Your task to perform on an android device: View the shopping cart on amazon.com. Add "bose soundlink" to the cart on amazon.com Image 0: 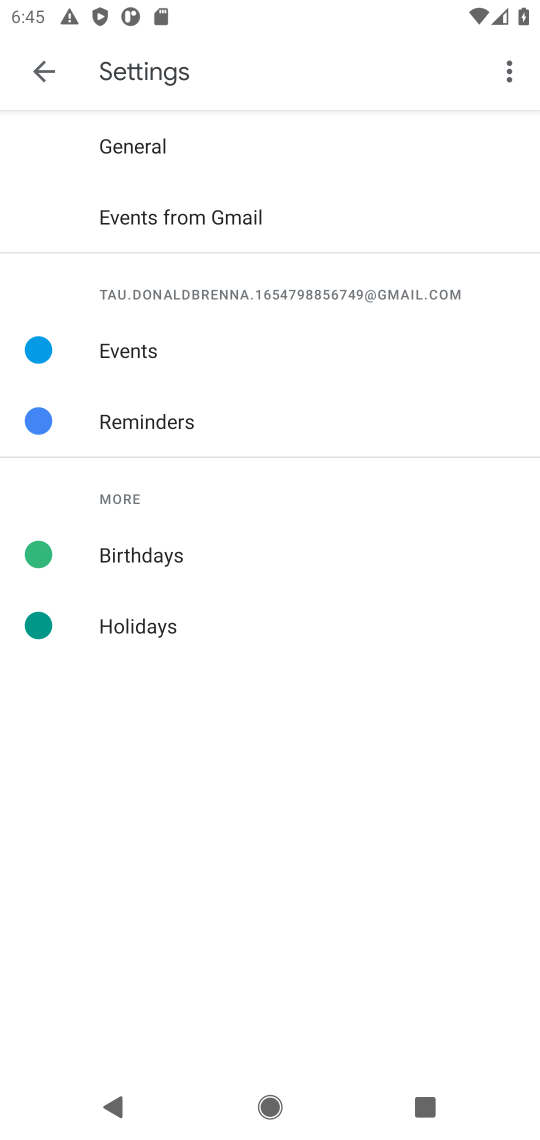
Step 0: press home button
Your task to perform on an android device: View the shopping cart on amazon.com. Add "bose soundlink" to the cart on amazon.com Image 1: 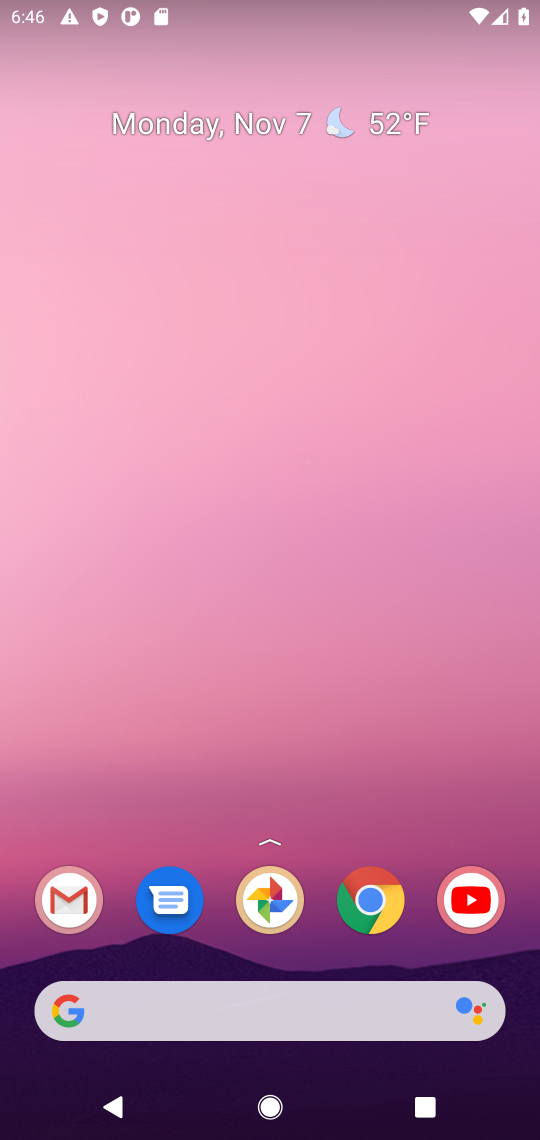
Step 1: click (379, 903)
Your task to perform on an android device: View the shopping cart on amazon.com. Add "bose soundlink" to the cart on amazon.com Image 2: 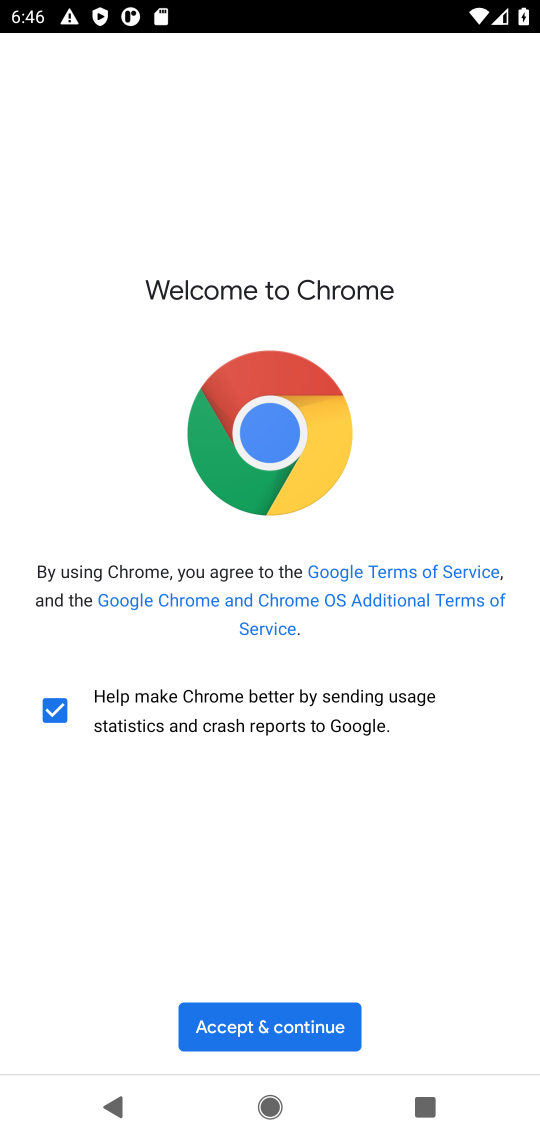
Step 2: click (284, 1014)
Your task to perform on an android device: View the shopping cart on amazon.com. Add "bose soundlink" to the cart on amazon.com Image 3: 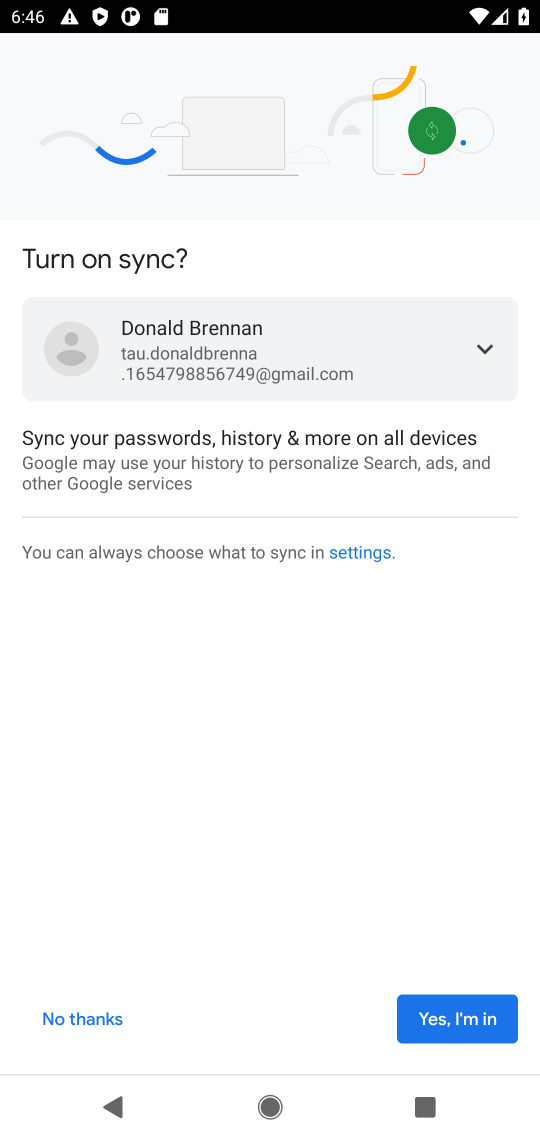
Step 3: click (425, 1019)
Your task to perform on an android device: View the shopping cart on amazon.com. Add "bose soundlink" to the cart on amazon.com Image 4: 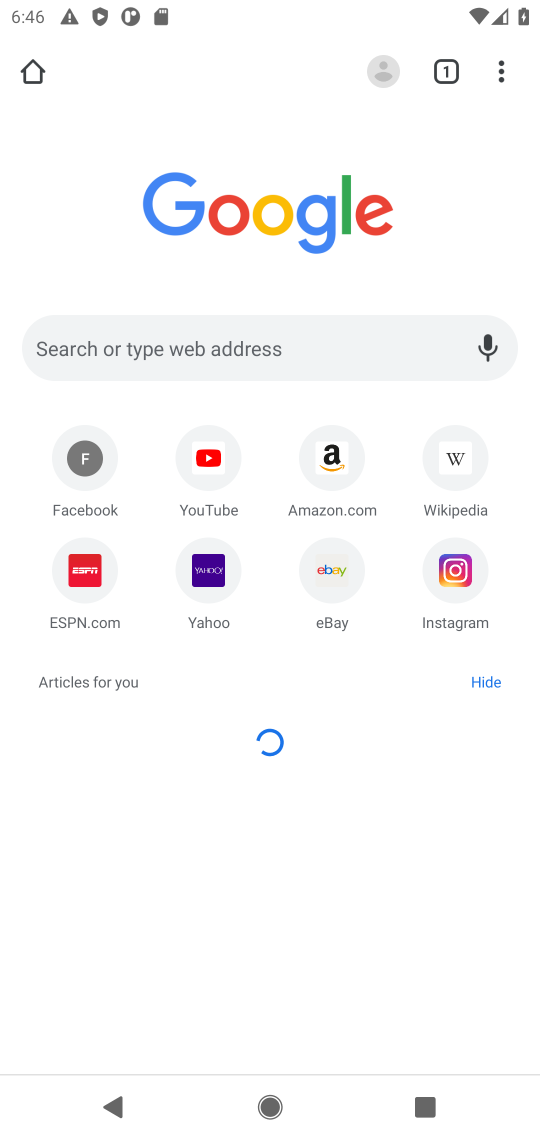
Step 4: click (334, 450)
Your task to perform on an android device: View the shopping cart on amazon.com. Add "bose soundlink" to the cart on amazon.com Image 5: 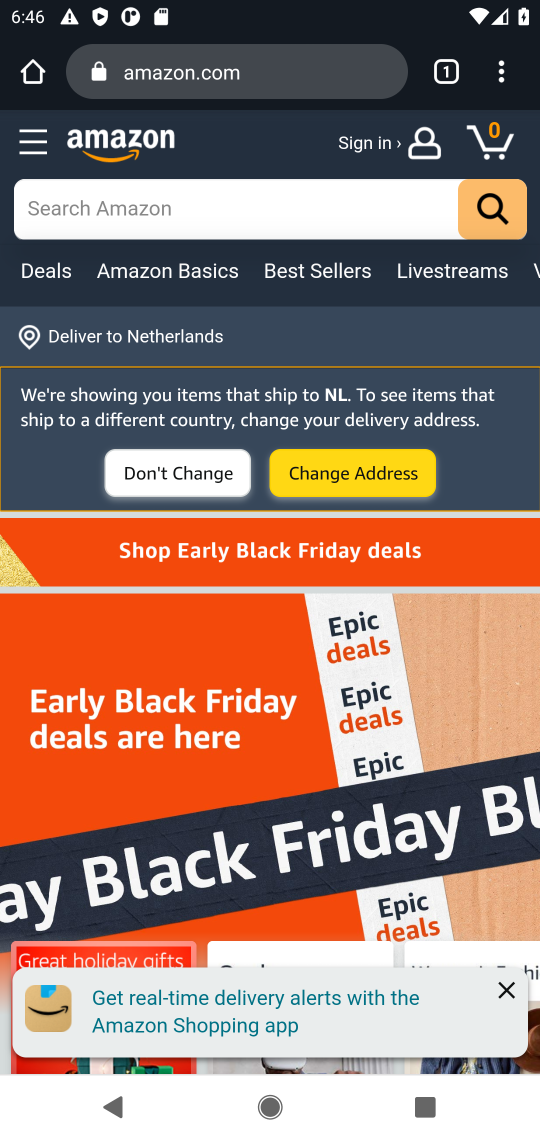
Step 5: click (192, 214)
Your task to perform on an android device: View the shopping cart on amazon.com. Add "bose soundlink" to the cart on amazon.com Image 6: 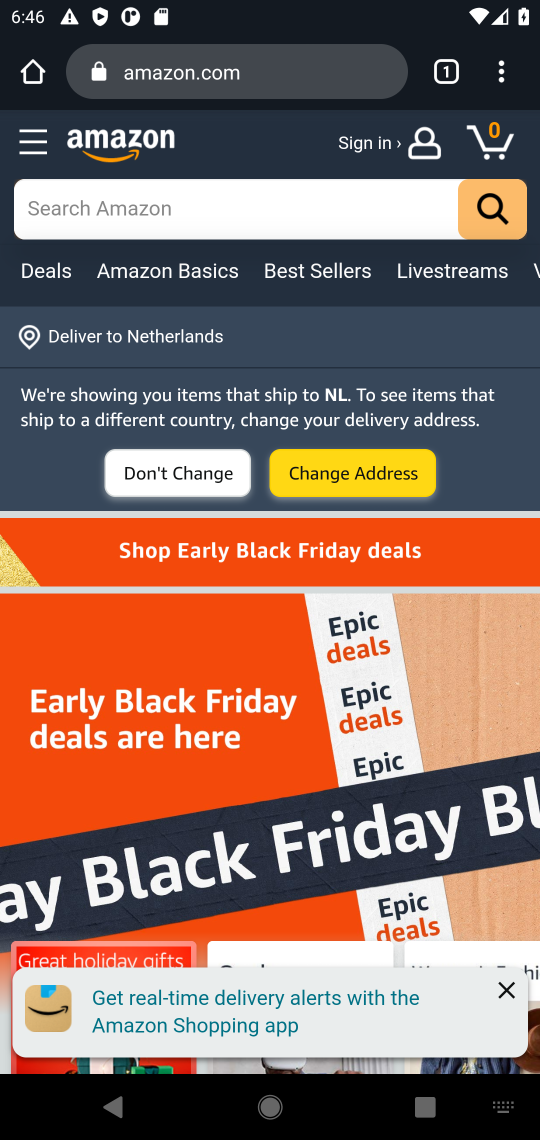
Step 6: click (118, 196)
Your task to perform on an android device: View the shopping cart on amazon.com. Add "bose soundlink" to the cart on amazon.com Image 7: 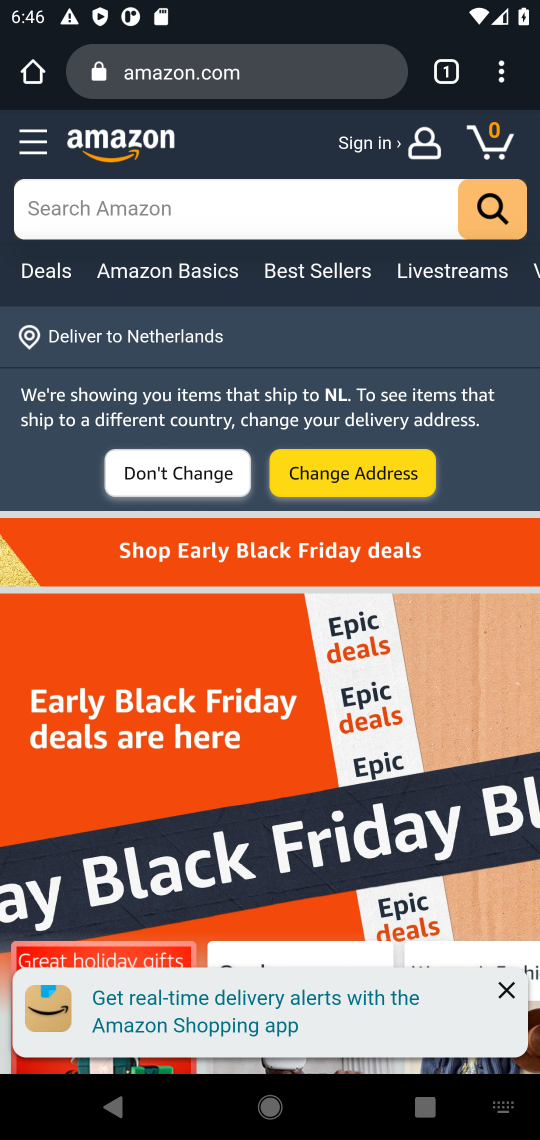
Step 7: type "bose soundlink"
Your task to perform on an android device: View the shopping cart on amazon.com. Add "bose soundlink" to the cart on amazon.com Image 8: 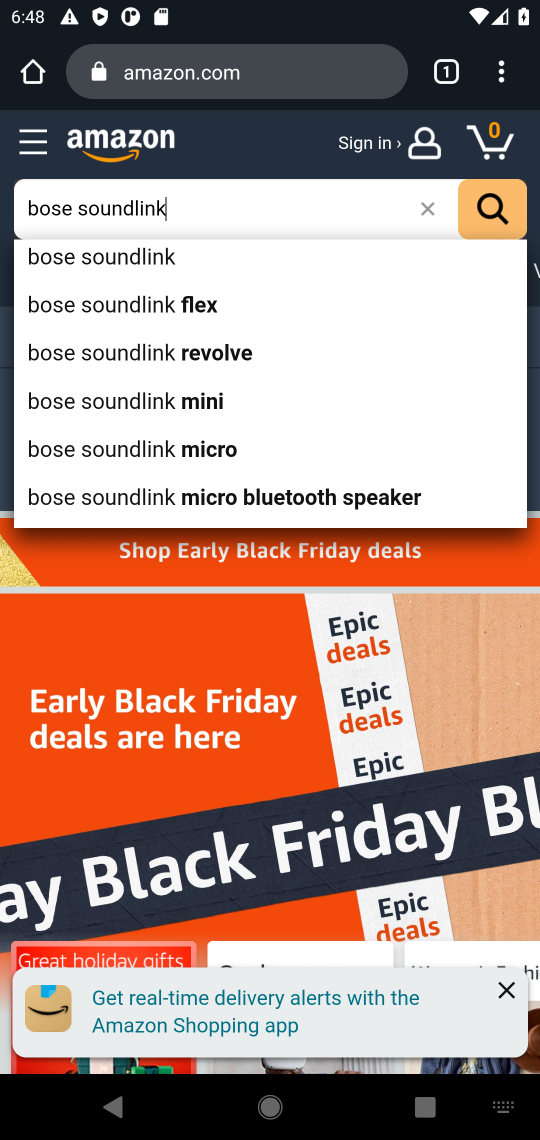
Step 8: click (134, 259)
Your task to perform on an android device: View the shopping cart on amazon.com. Add "bose soundlink" to the cart on amazon.com Image 9: 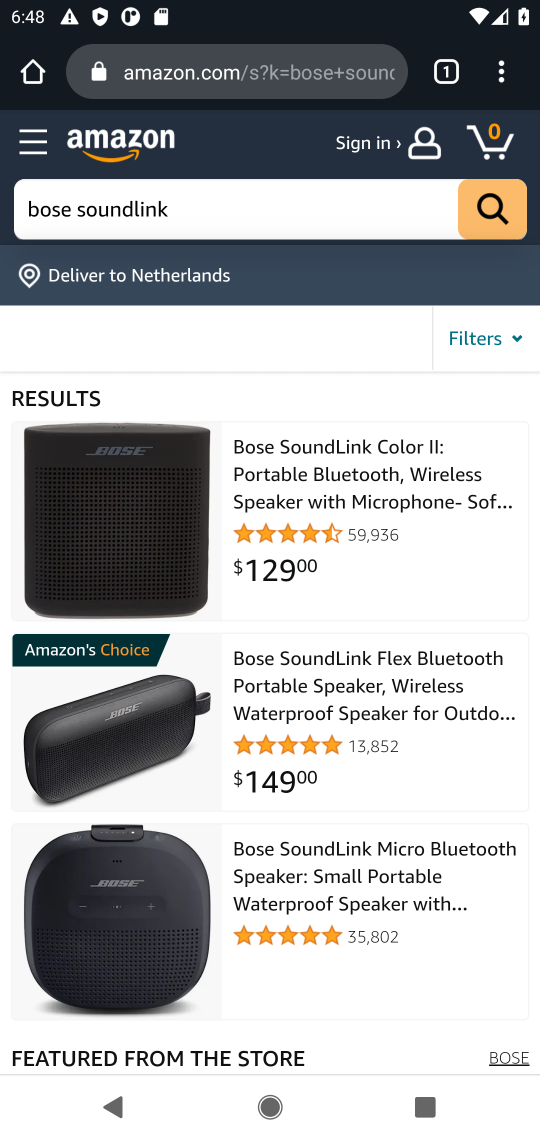
Step 9: click (151, 530)
Your task to perform on an android device: View the shopping cart on amazon.com. Add "bose soundlink" to the cart on amazon.com Image 10: 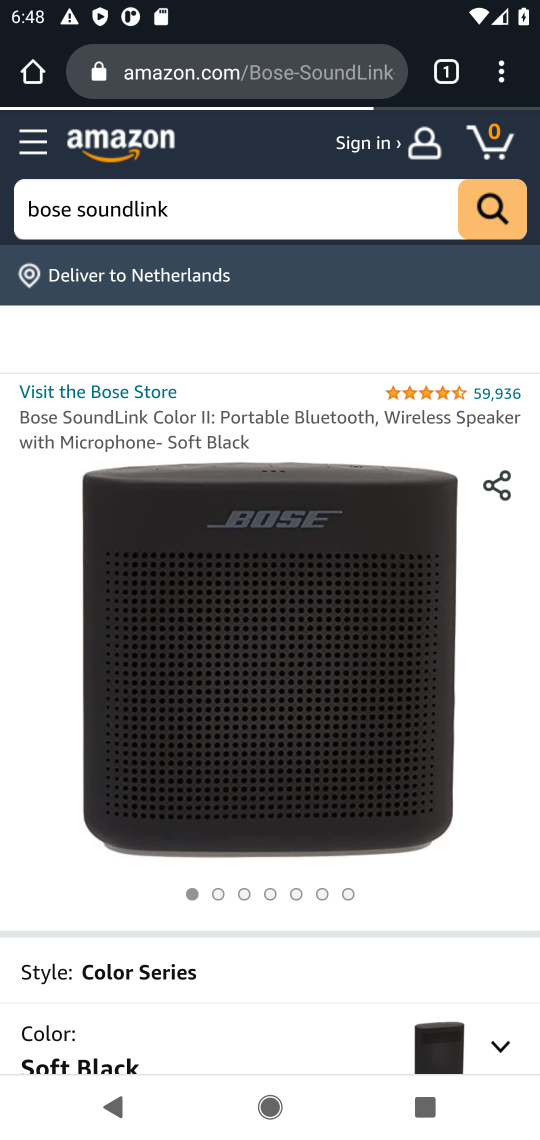
Step 10: drag from (286, 948) to (297, 383)
Your task to perform on an android device: View the shopping cart on amazon.com. Add "bose soundlink" to the cart on amazon.com Image 11: 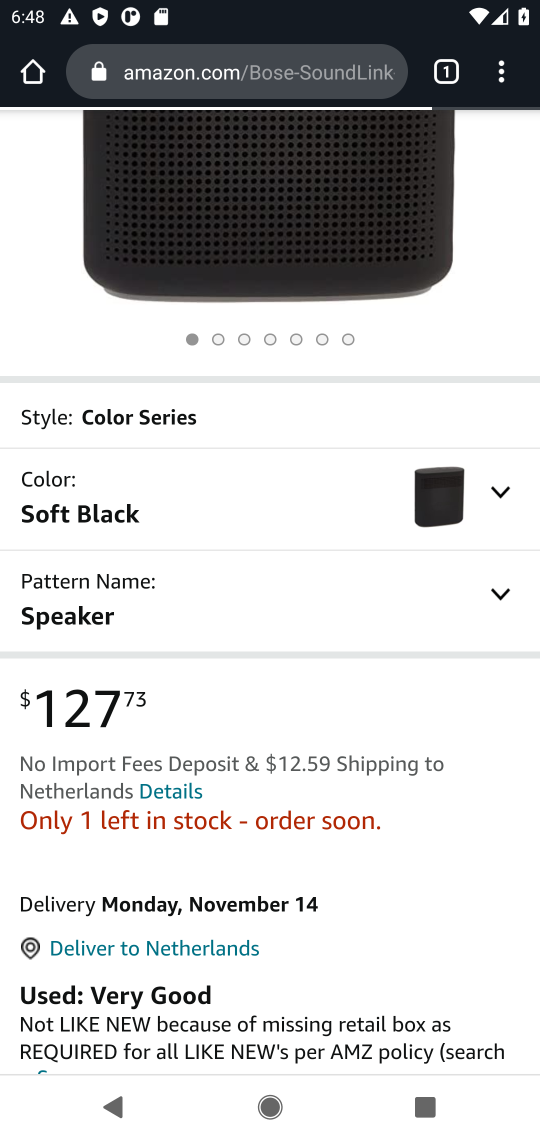
Step 11: drag from (212, 915) to (309, 352)
Your task to perform on an android device: View the shopping cart on amazon.com. Add "bose soundlink" to the cart on amazon.com Image 12: 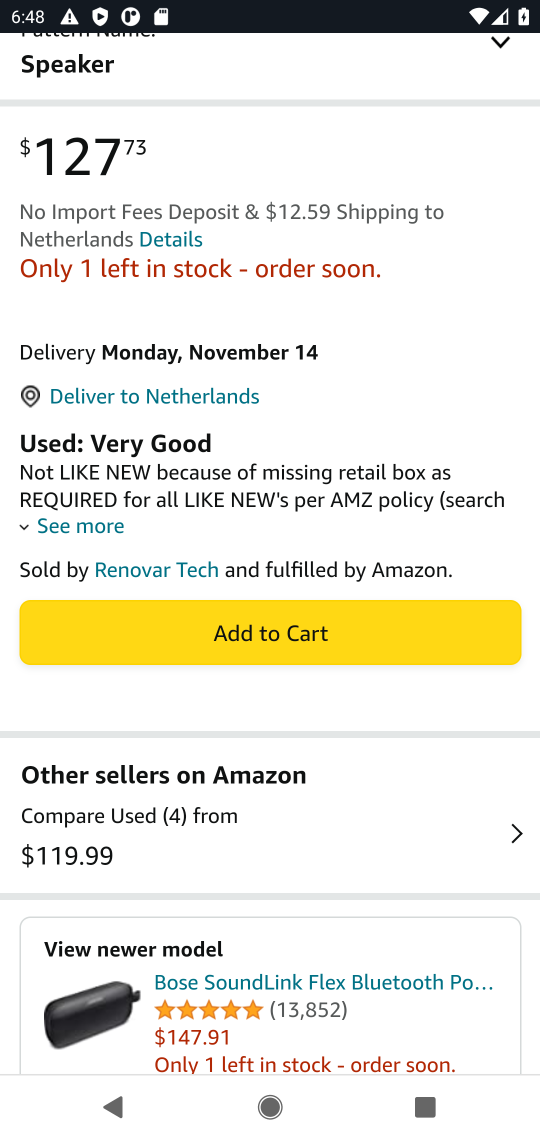
Step 12: click (236, 654)
Your task to perform on an android device: View the shopping cart on amazon.com. Add "bose soundlink" to the cart on amazon.com Image 13: 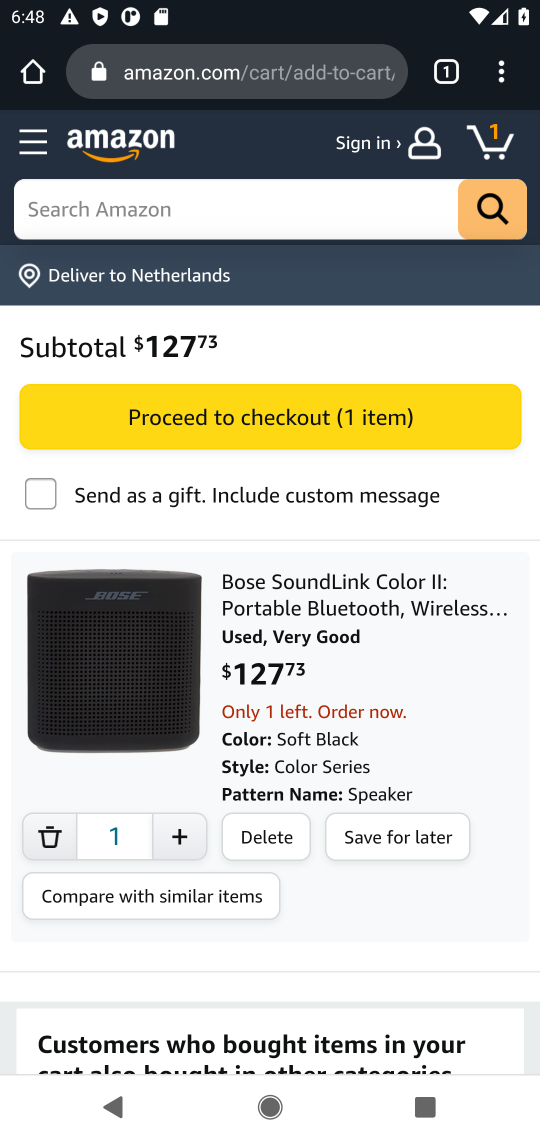
Step 13: task complete